Your task to perform on an android device: Open Google Chrome and open the bookmarks view Image 0: 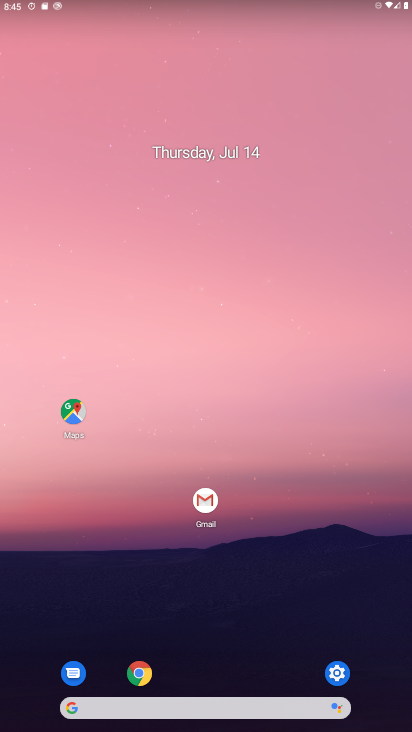
Step 0: press home button
Your task to perform on an android device: Open Google Chrome and open the bookmarks view Image 1: 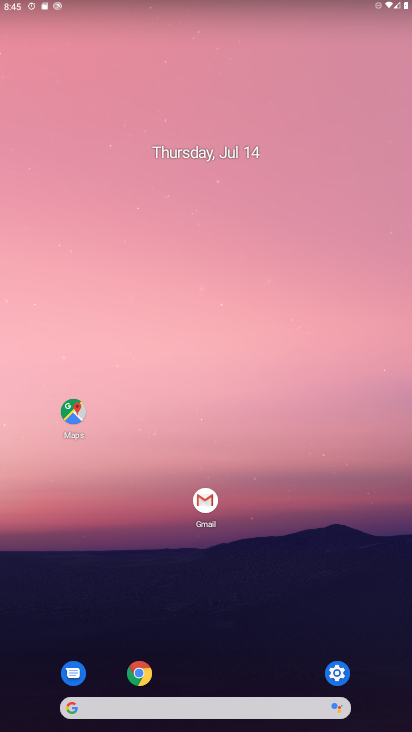
Step 1: click (145, 667)
Your task to perform on an android device: Open Google Chrome and open the bookmarks view Image 2: 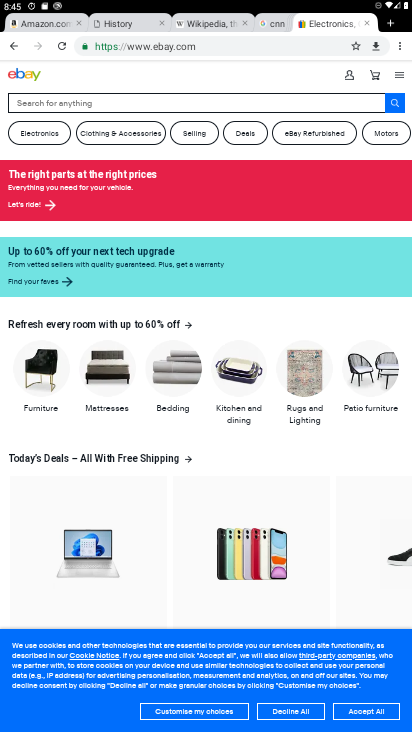
Step 2: click (397, 49)
Your task to perform on an android device: Open Google Chrome and open the bookmarks view Image 3: 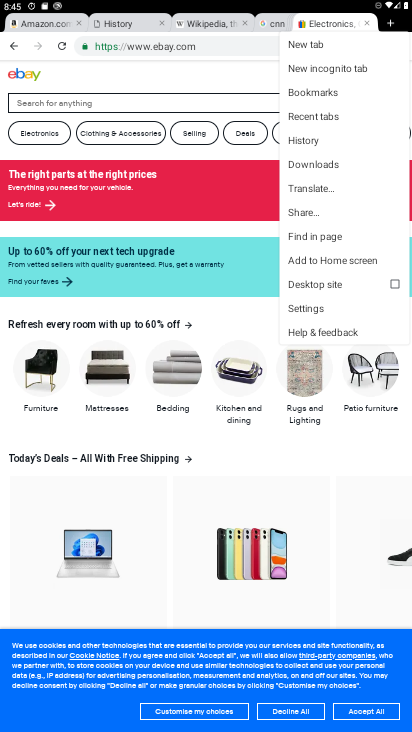
Step 3: click (325, 93)
Your task to perform on an android device: Open Google Chrome and open the bookmarks view Image 4: 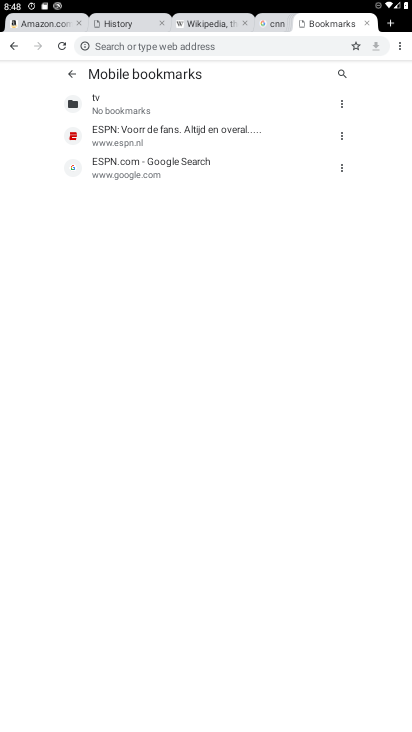
Step 4: task complete